Your task to perform on an android device: empty trash in the gmail app Image 0: 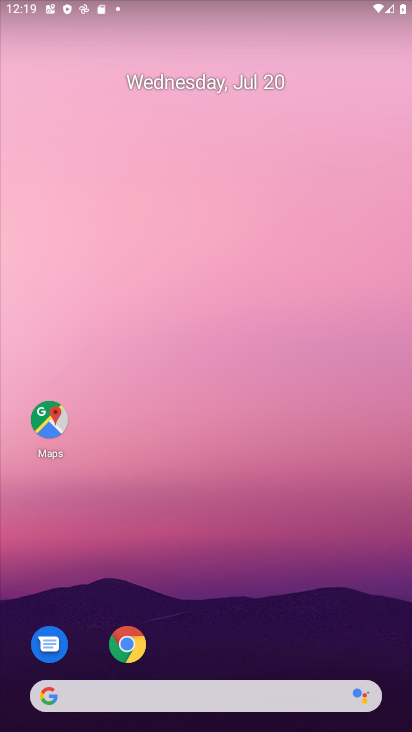
Step 0: drag from (355, 612) to (354, 86)
Your task to perform on an android device: empty trash in the gmail app Image 1: 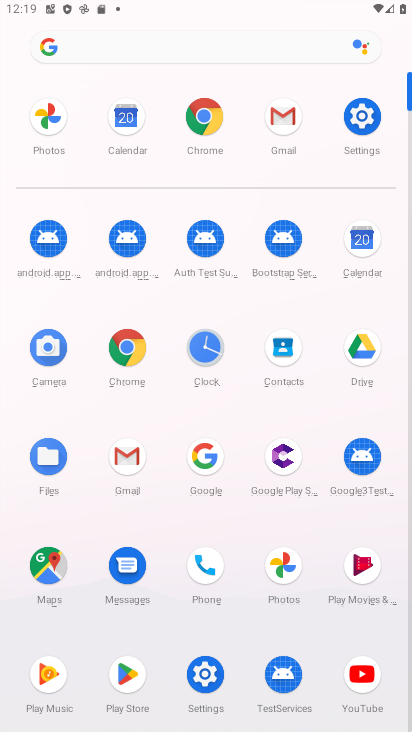
Step 1: click (113, 462)
Your task to perform on an android device: empty trash in the gmail app Image 2: 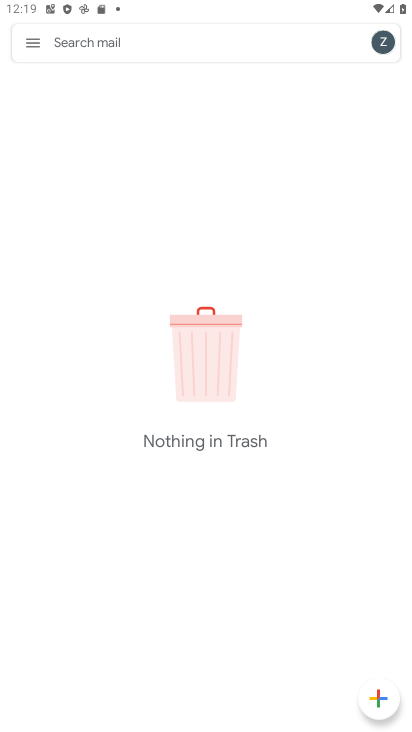
Step 2: task complete